Your task to perform on an android device: check storage Image 0: 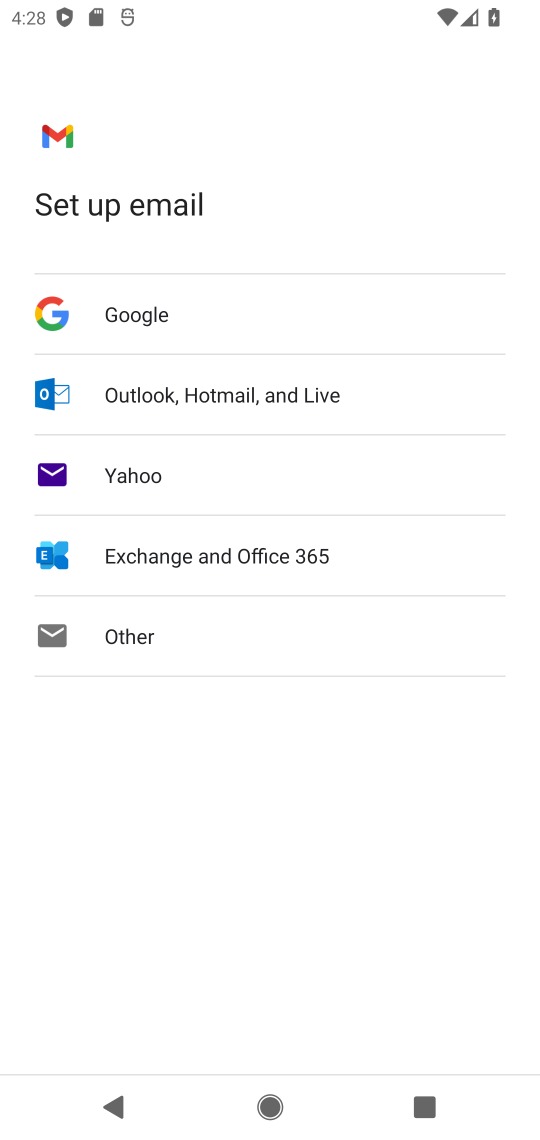
Step 0: press home button
Your task to perform on an android device: check storage Image 1: 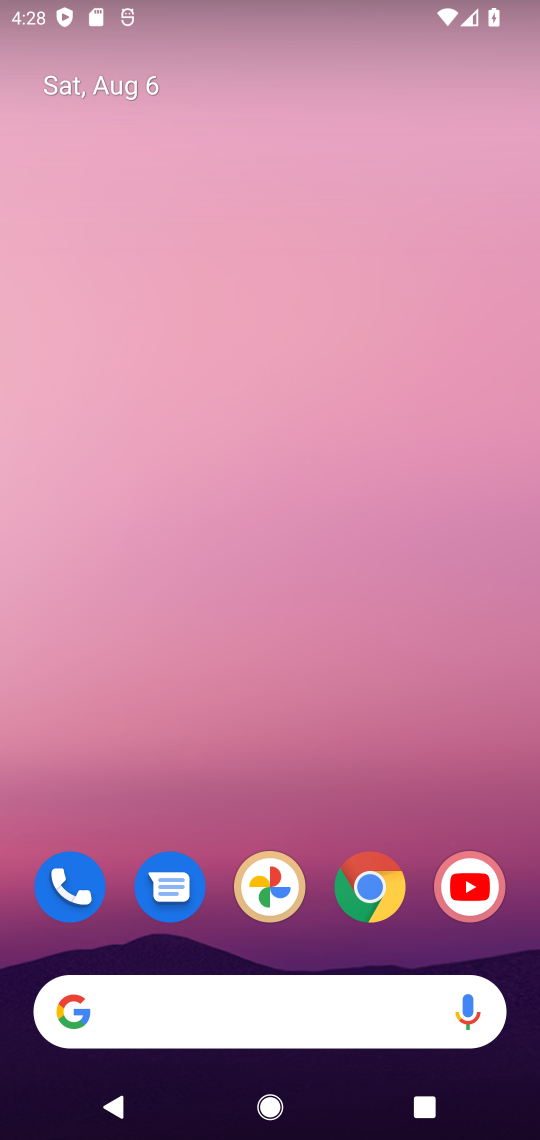
Step 1: drag from (290, 1027) to (233, 257)
Your task to perform on an android device: check storage Image 2: 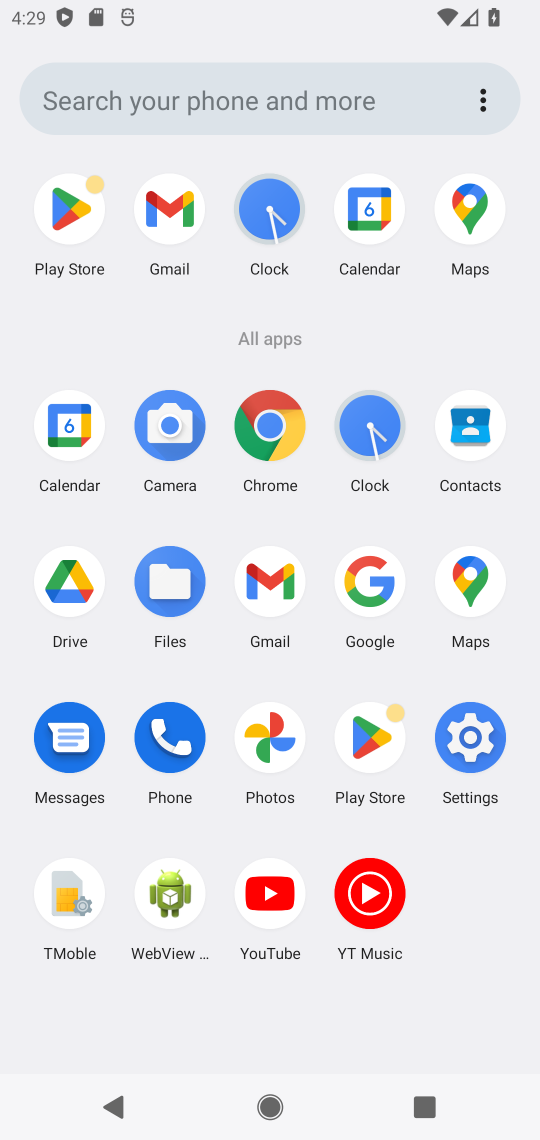
Step 2: click (441, 726)
Your task to perform on an android device: check storage Image 3: 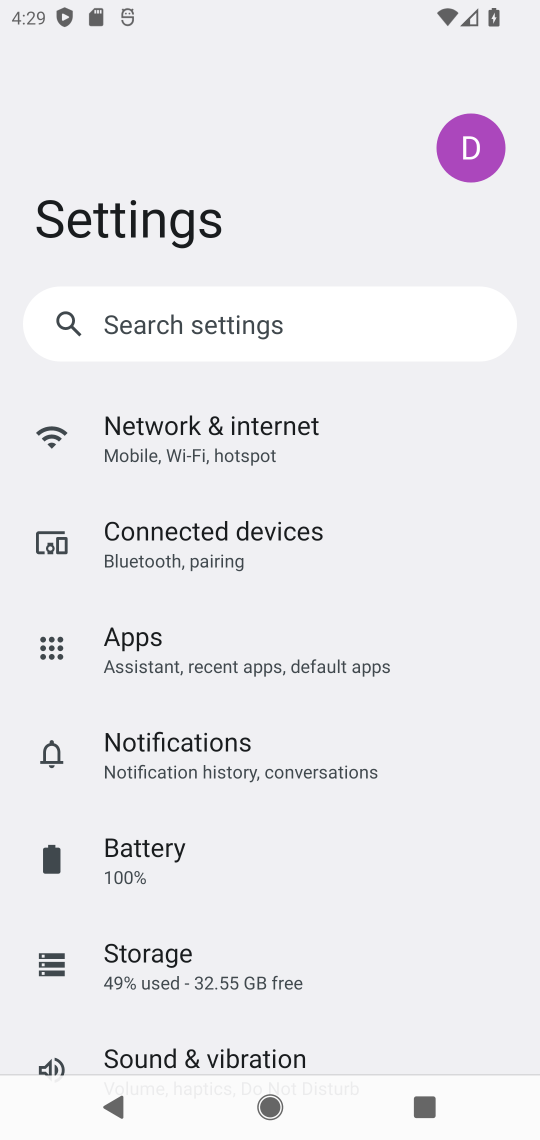
Step 3: click (211, 981)
Your task to perform on an android device: check storage Image 4: 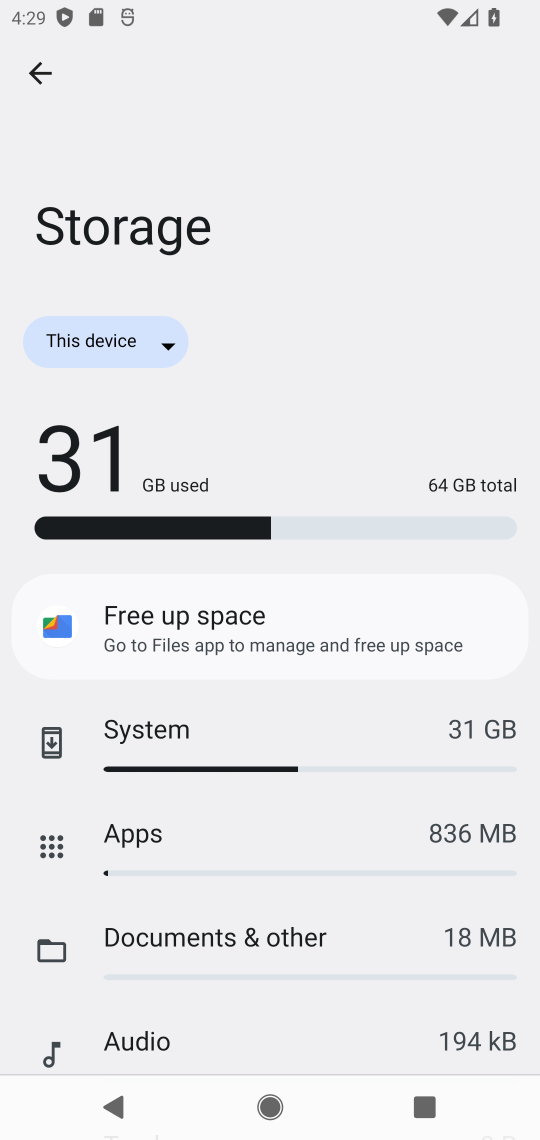
Step 4: task complete